Your task to perform on an android device: What's on the menu at Red Lobster? Image 0: 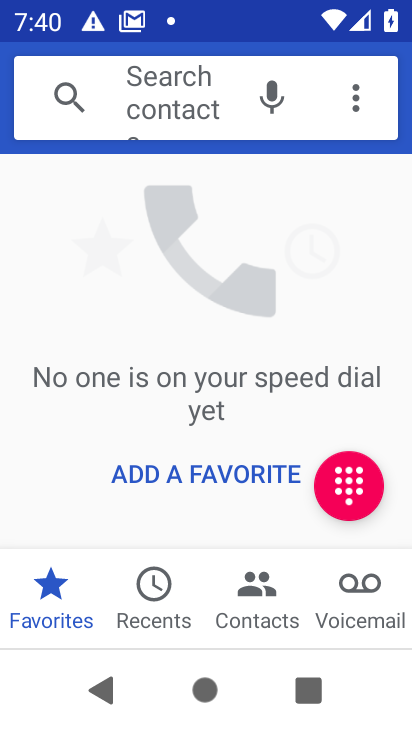
Step 0: press home button
Your task to perform on an android device: What's on the menu at Red Lobster? Image 1: 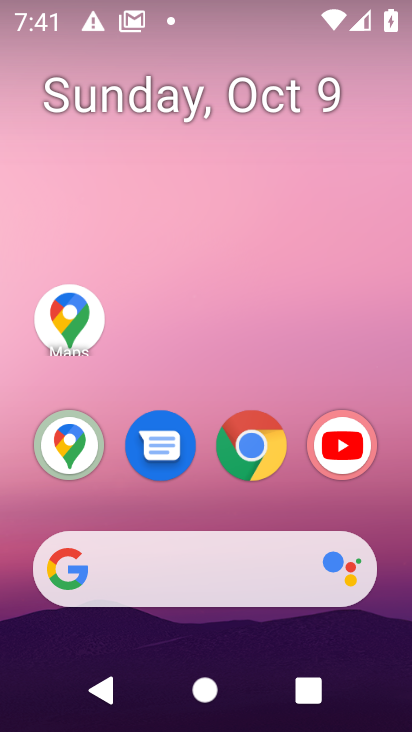
Step 1: drag from (146, 529) to (147, 163)
Your task to perform on an android device: What's on the menu at Red Lobster? Image 2: 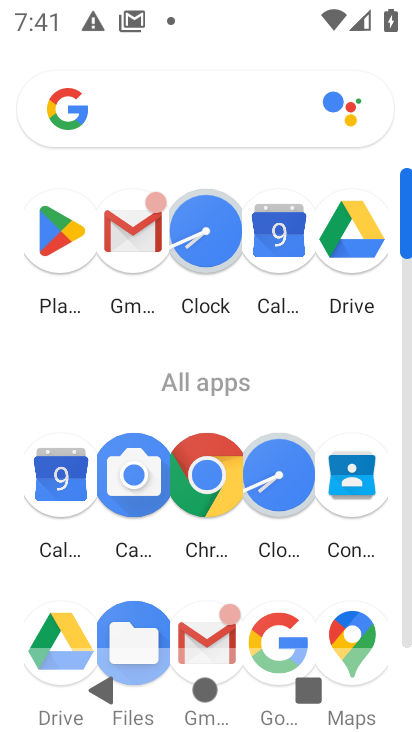
Step 2: click (275, 630)
Your task to perform on an android device: What's on the menu at Red Lobster? Image 3: 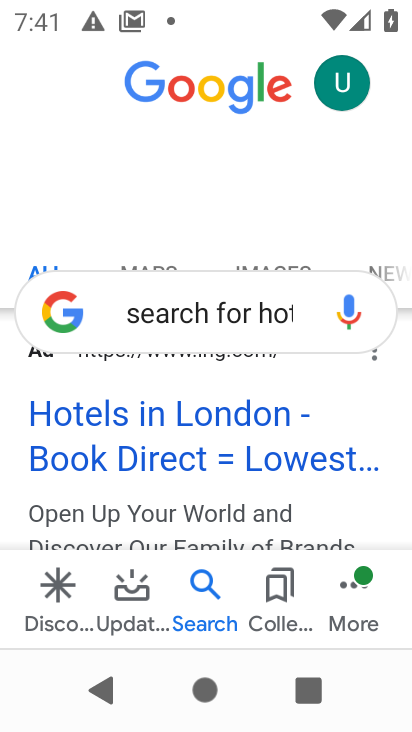
Step 3: click (204, 308)
Your task to perform on an android device: What's on the menu at Red Lobster? Image 4: 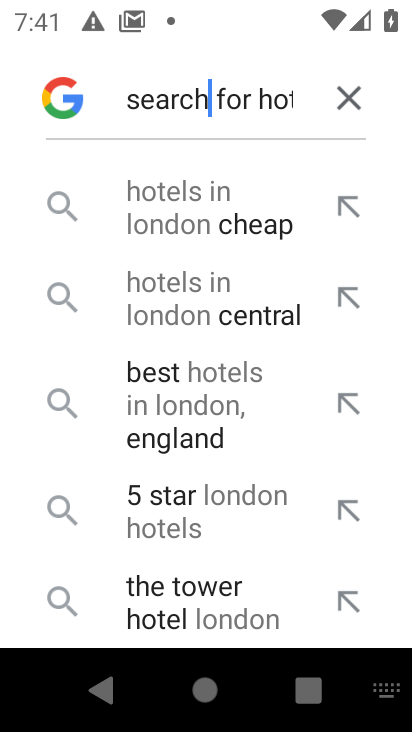
Step 4: type "What's on the menu at Red Lobster?"
Your task to perform on an android device: What's on the menu at Red Lobster? Image 5: 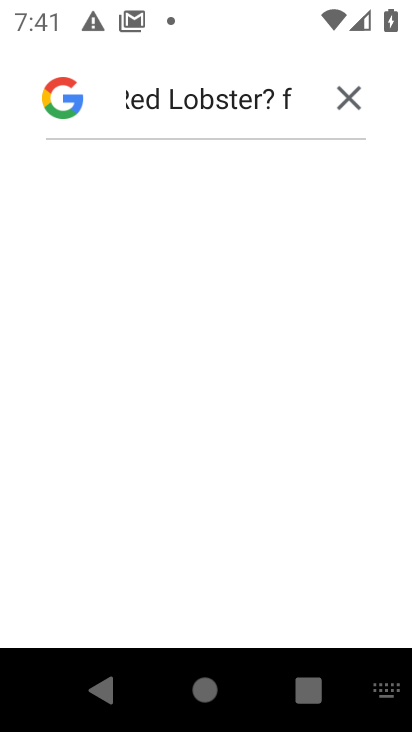
Step 5: click (353, 102)
Your task to perform on an android device: What's on the menu at Red Lobster? Image 6: 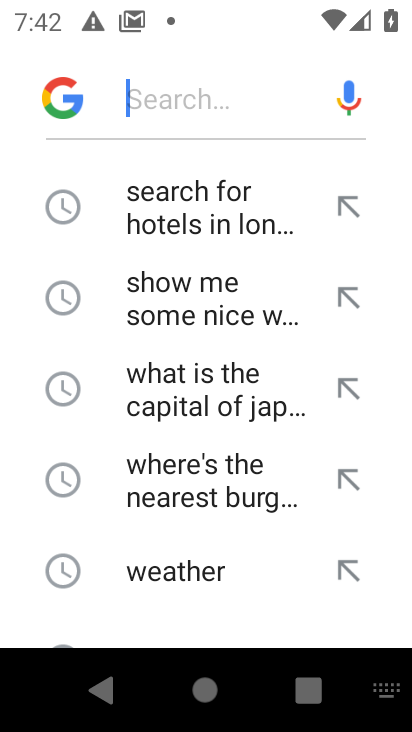
Step 6: type "What's on the menu at Red Lobster?"
Your task to perform on an android device: What's on the menu at Red Lobster? Image 7: 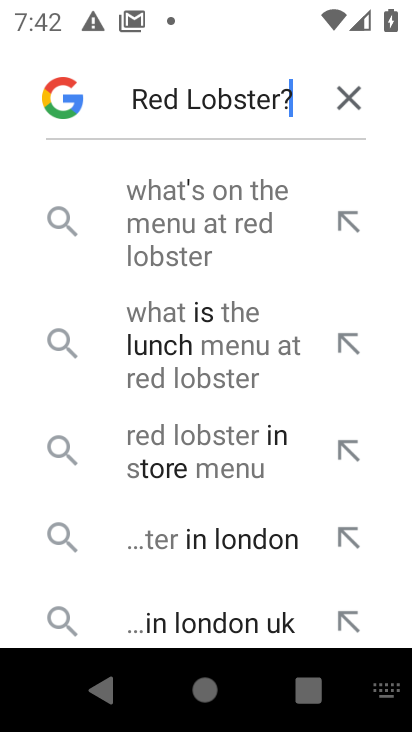
Step 7: click (236, 219)
Your task to perform on an android device: What's on the menu at Red Lobster? Image 8: 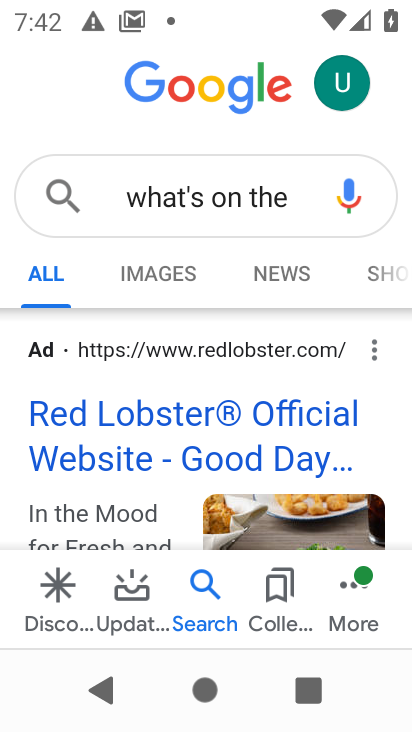
Step 8: click (197, 421)
Your task to perform on an android device: What's on the menu at Red Lobster? Image 9: 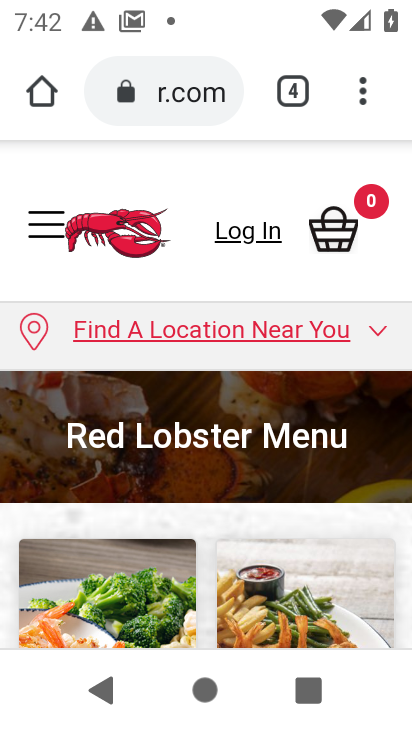
Step 9: task complete